Your task to perform on an android device: Go to Wikipedia Image 0: 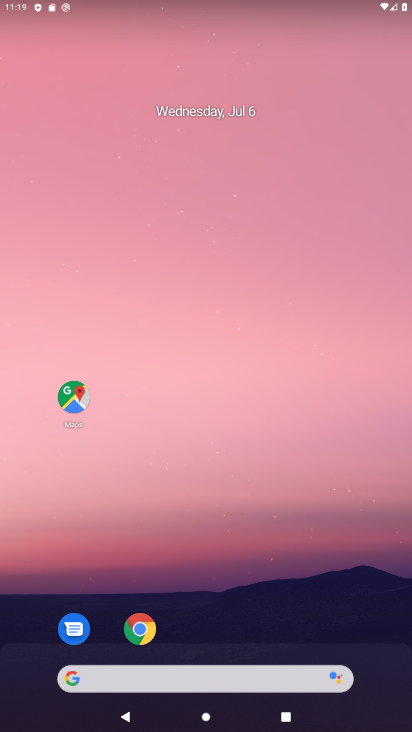
Step 0: click (146, 632)
Your task to perform on an android device: Go to Wikipedia Image 1: 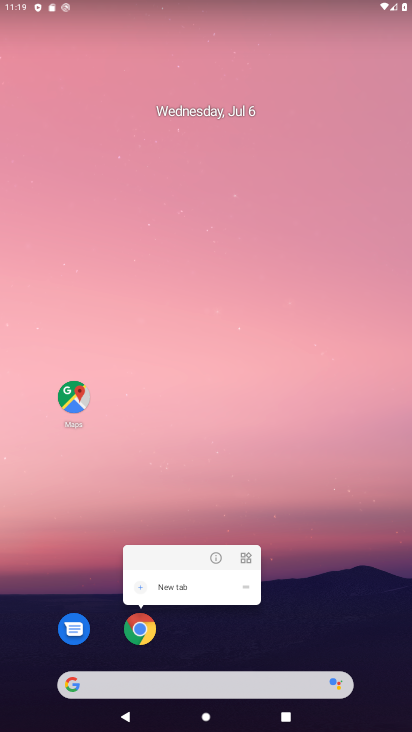
Step 1: click (146, 632)
Your task to perform on an android device: Go to Wikipedia Image 2: 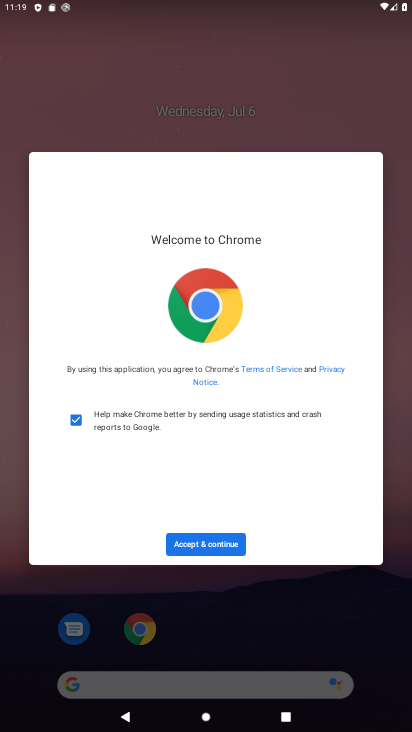
Step 2: click (214, 540)
Your task to perform on an android device: Go to Wikipedia Image 3: 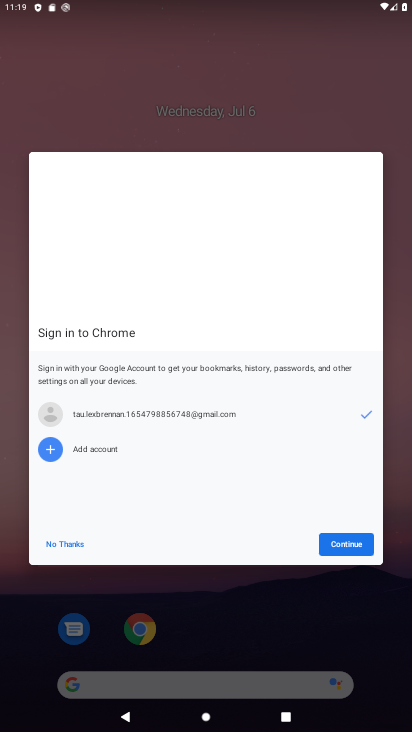
Step 3: click (334, 547)
Your task to perform on an android device: Go to Wikipedia Image 4: 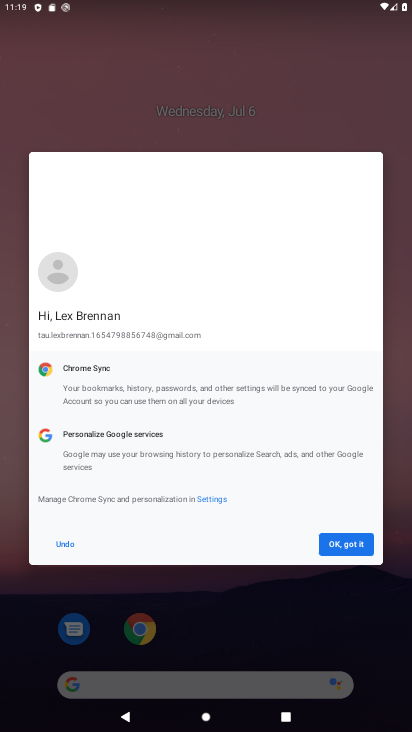
Step 4: click (334, 547)
Your task to perform on an android device: Go to Wikipedia Image 5: 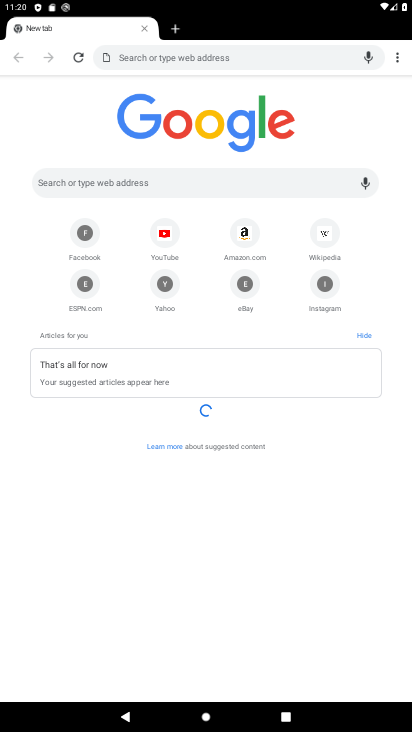
Step 5: click (332, 232)
Your task to perform on an android device: Go to Wikipedia Image 6: 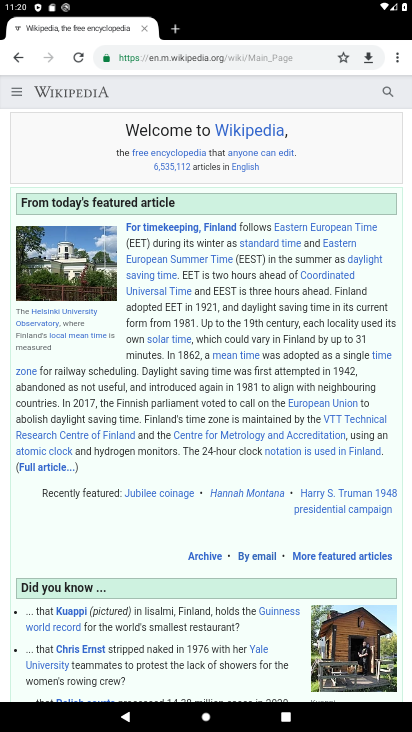
Step 6: task complete